Your task to perform on an android device: Add "razer kraken" to the cart on target, then select checkout. Image 0: 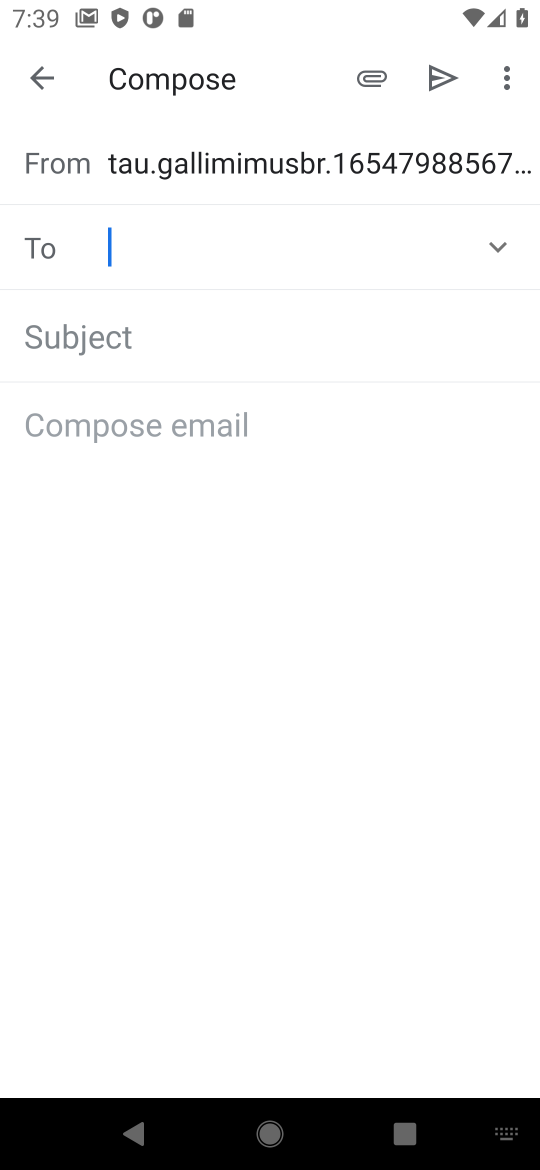
Step 0: press home button
Your task to perform on an android device: Add "razer kraken" to the cart on target, then select checkout. Image 1: 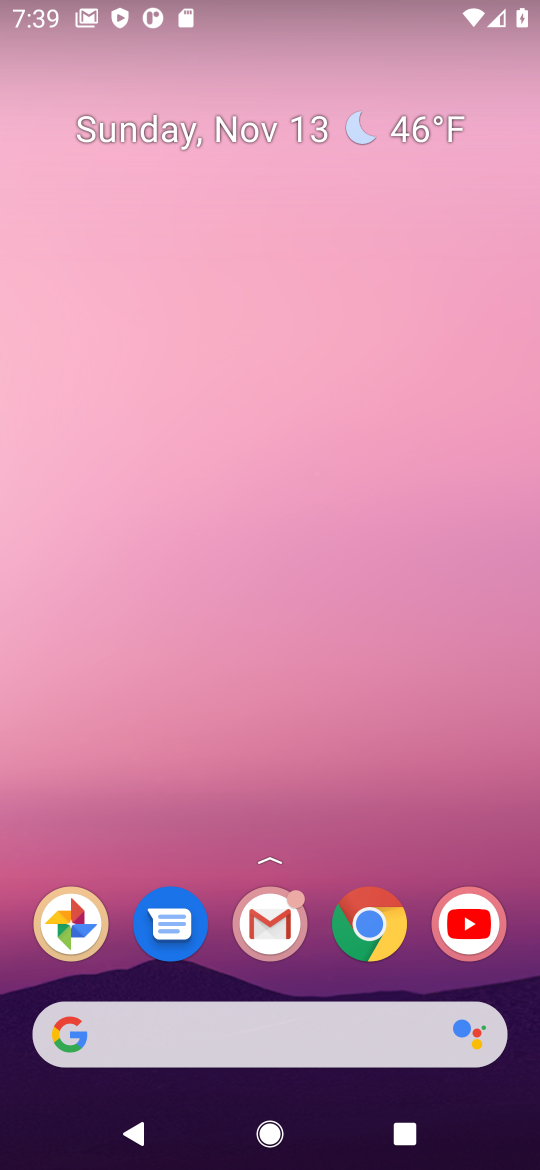
Step 1: click (356, 916)
Your task to perform on an android device: Add "razer kraken" to the cart on target, then select checkout. Image 2: 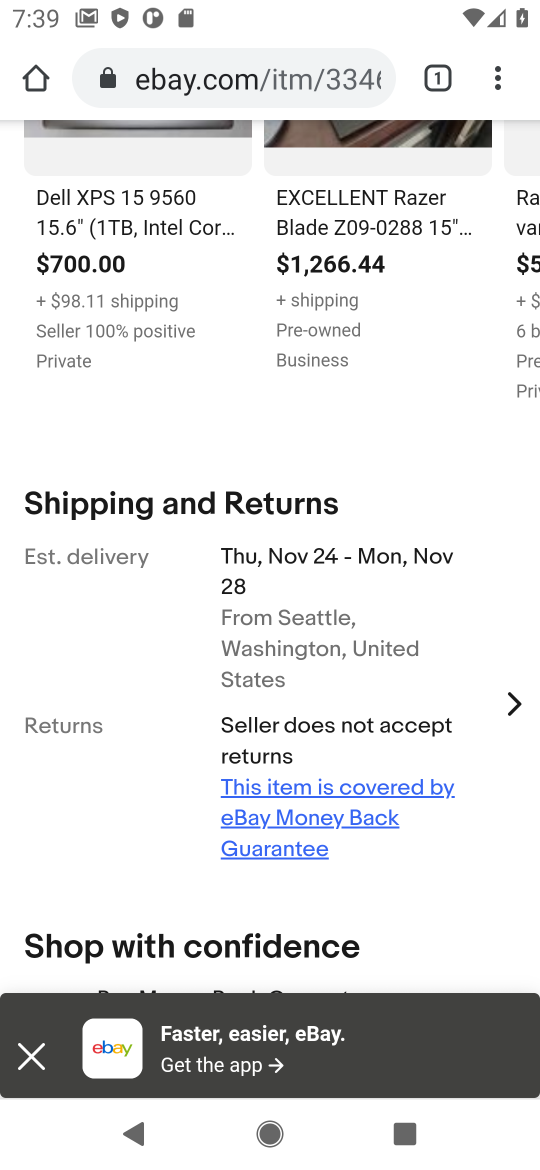
Step 2: click (294, 70)
Your task to perform on an android device: Add "razer kraken" to the cart on target, then select checkout. Image 3: 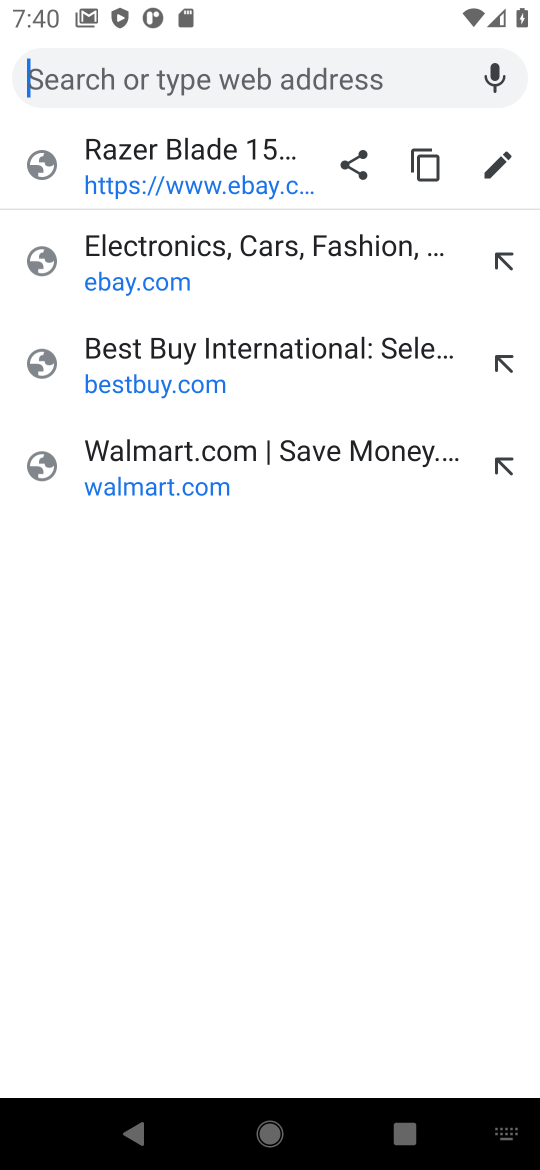
Step 3: type "target"
Your task to perform on an android device: Add "razer kraken" to the cart on target, then select checkout. Image 4: 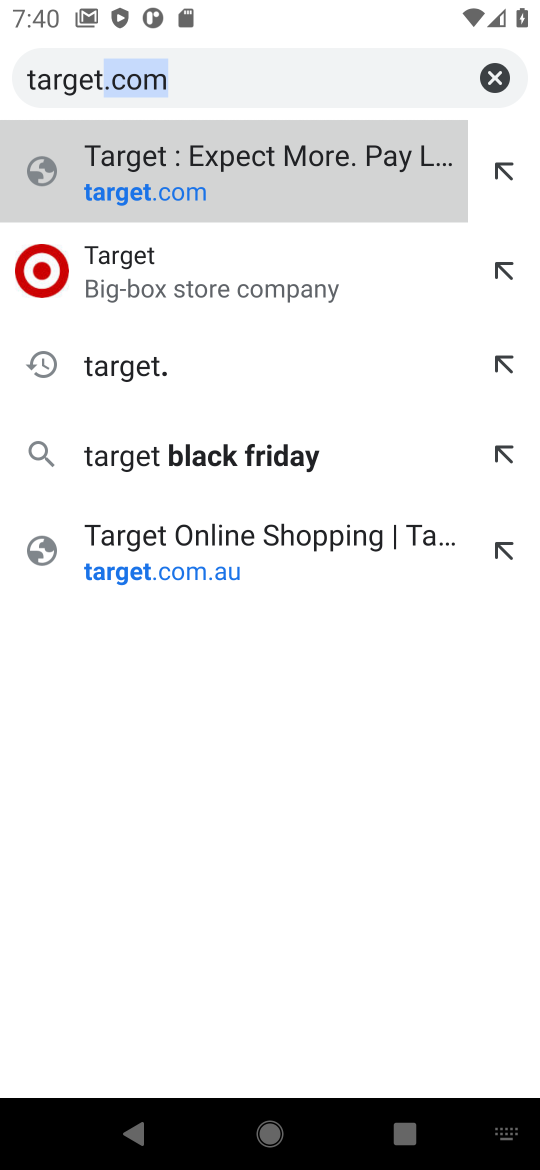
Step 4: press enter
Your task to perform on an android device: Add "razer kraken" to the cart on target, then select checkout. Image 5: 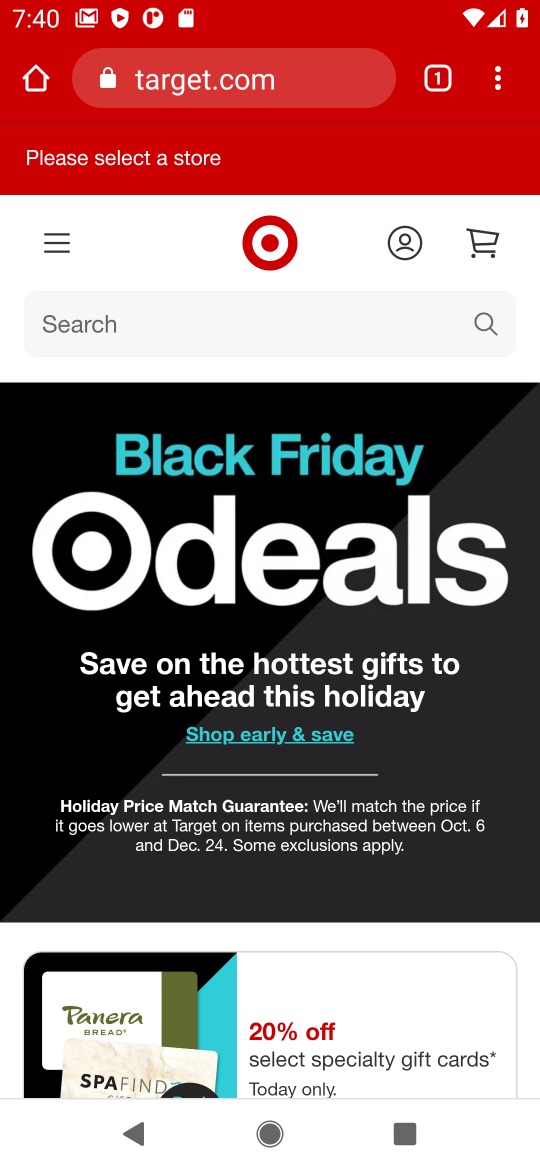
Step 5: click (333, 316)
Your task to perform on an android device: Add "razer kraken" to the cart on target, then select checkout. Image 6: 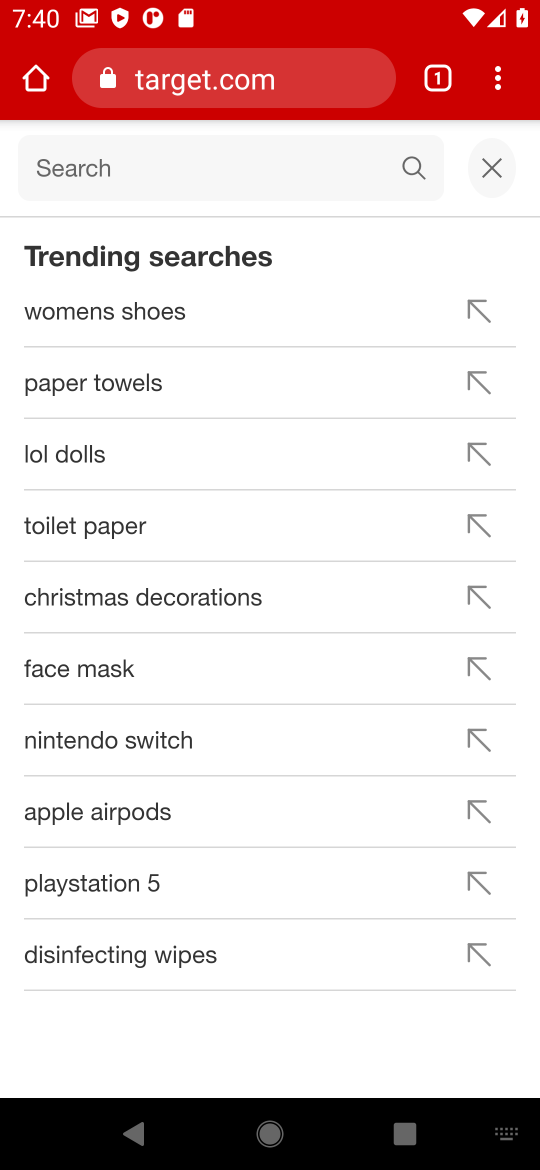
Step 6: click (172, 158)
Your task to perform on an android device: Add "razer kraken" to the cart on target, then select checkout. Image 7: 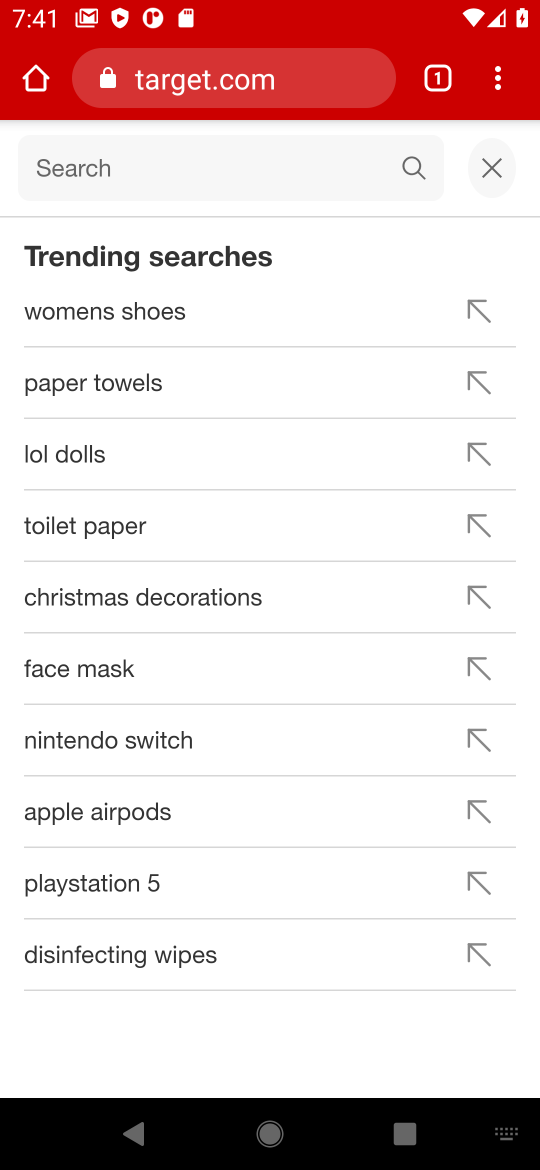
Step 7: type "razer kraken"
Your task to perform on an android device: Add "razer kraken" to the cart on target, then select checkout. Image 8: 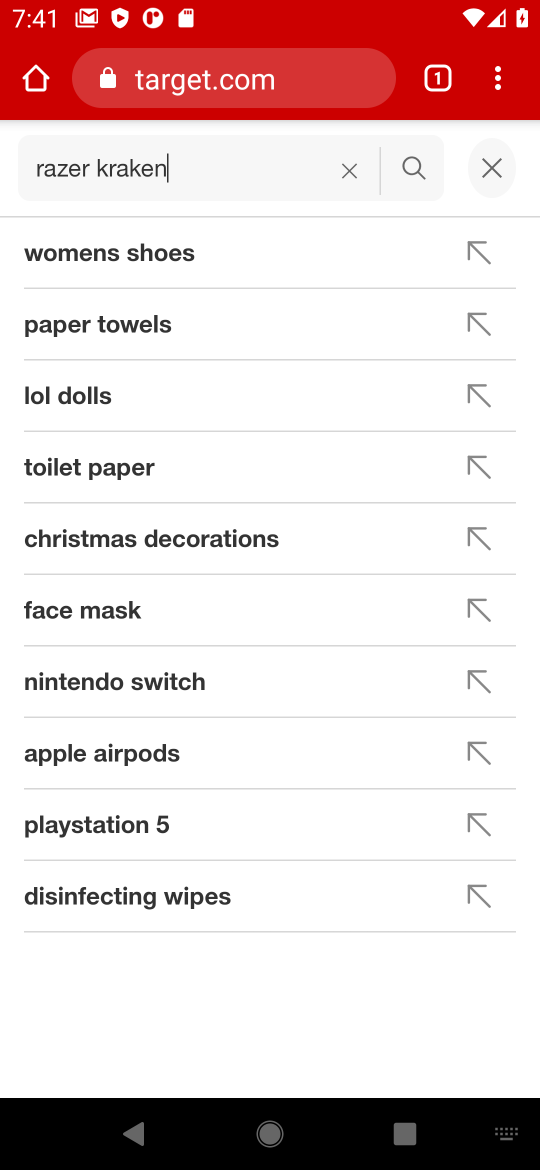
Step 8: press enter
Your task to perform on an android device: Add "razer kraken" to the cart on target, then select checkout. Image 9: 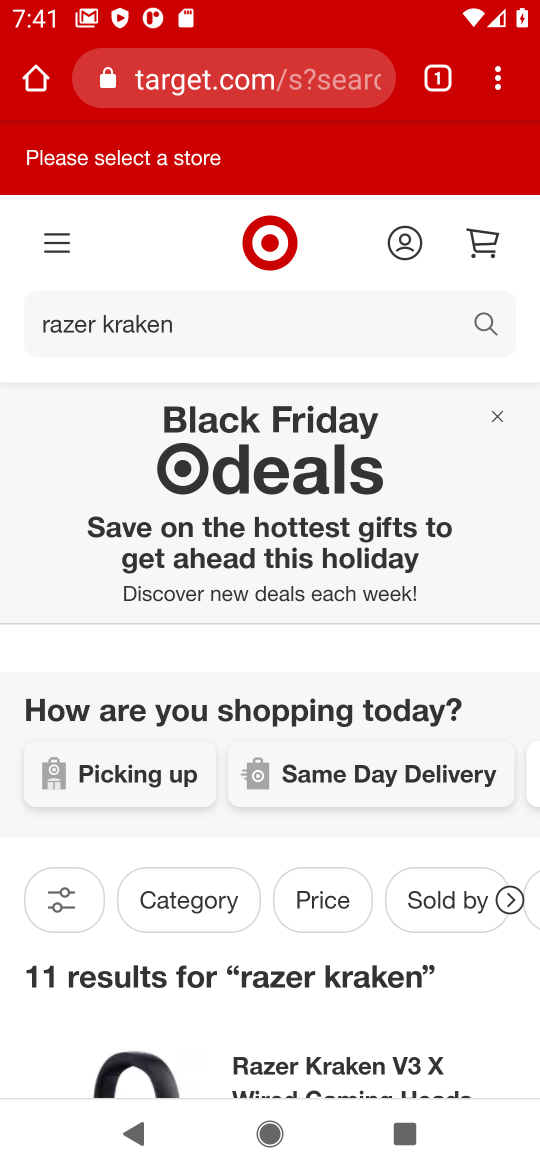
Step 9: drag from (215, 1009) to (331, 361)
Your task to perform on an android device: Add "razer kraken" to the cart on target, then select checkout. Image 10: 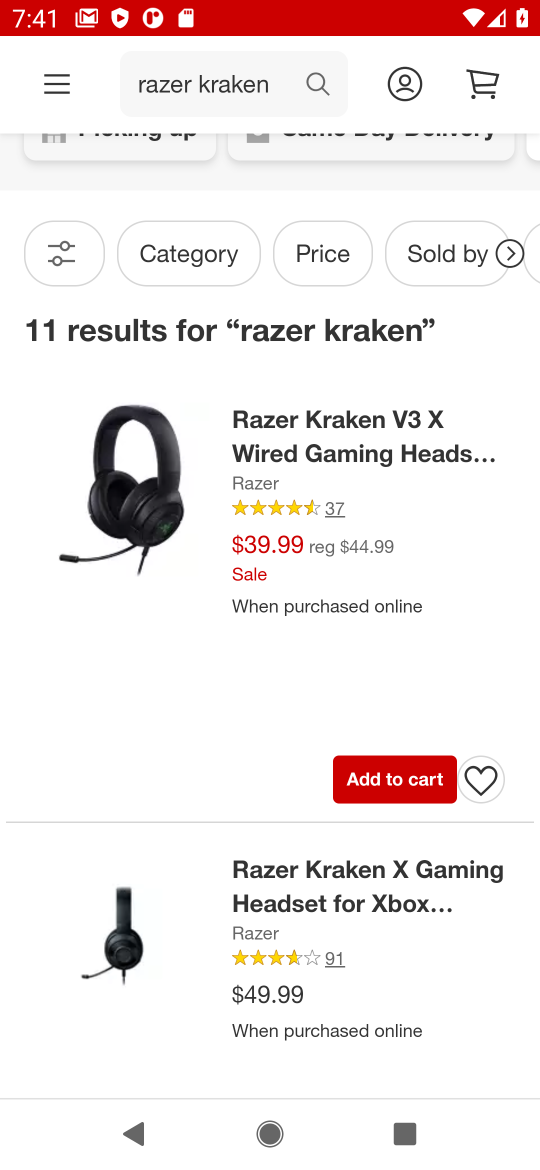
Step 10: click (338, 428)
Your task to perform on an android device: Add "razer kraken" to the cart on target, then select checkout. Image 11: 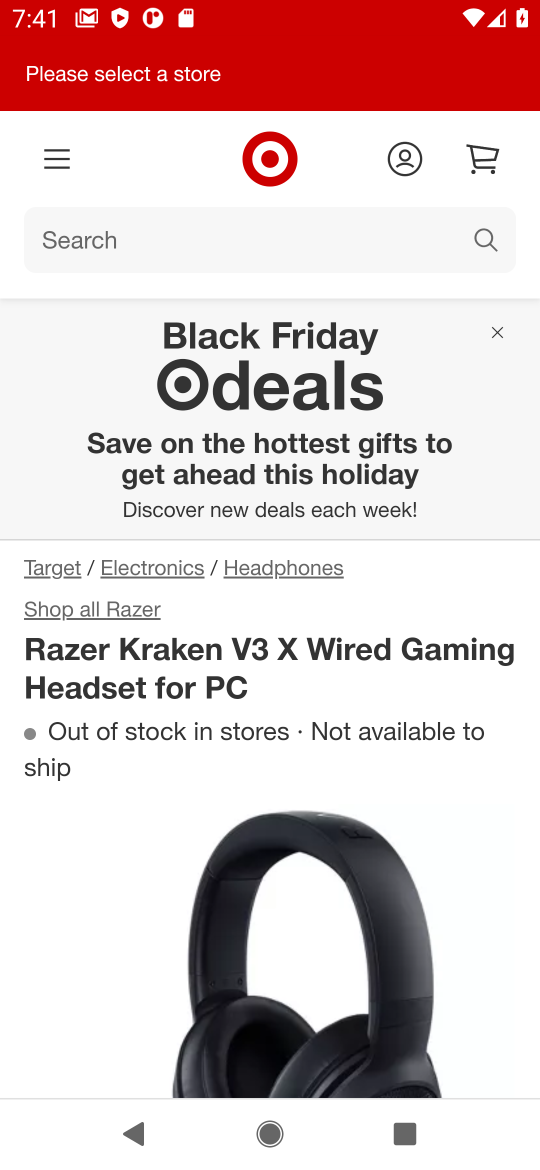
Step 11: drag from (96, 976) to (404, 203)
Your task to perform on an android device: Add "razer kraken" to the cart on target, then select checkout. Image 12: 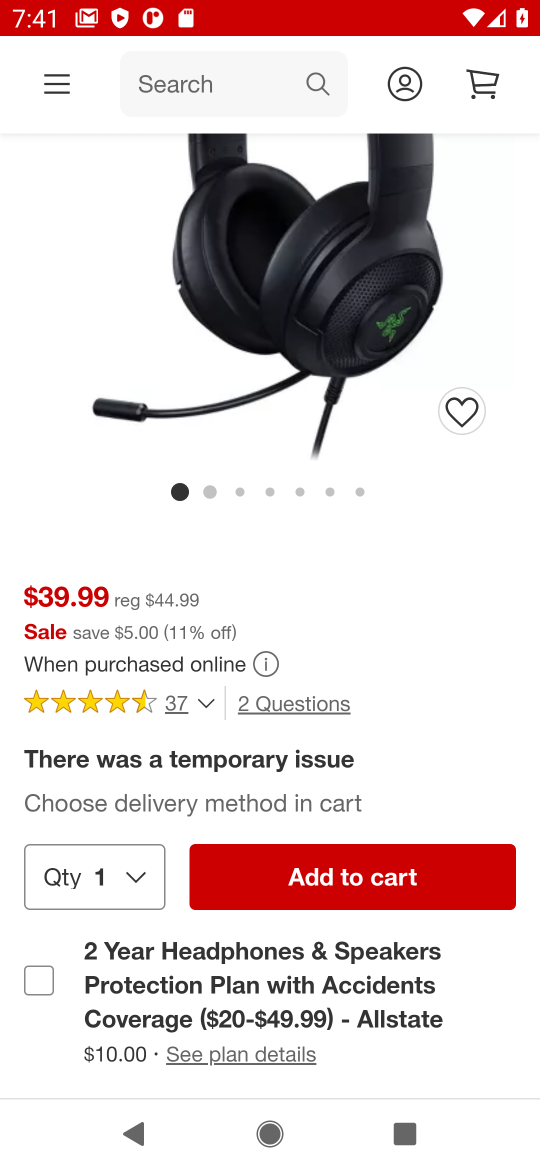
Step 12: click (336, 881)
Your task to perform on an android device: Add "razer kraken" to the cart on target, then select checkout. Image 13: 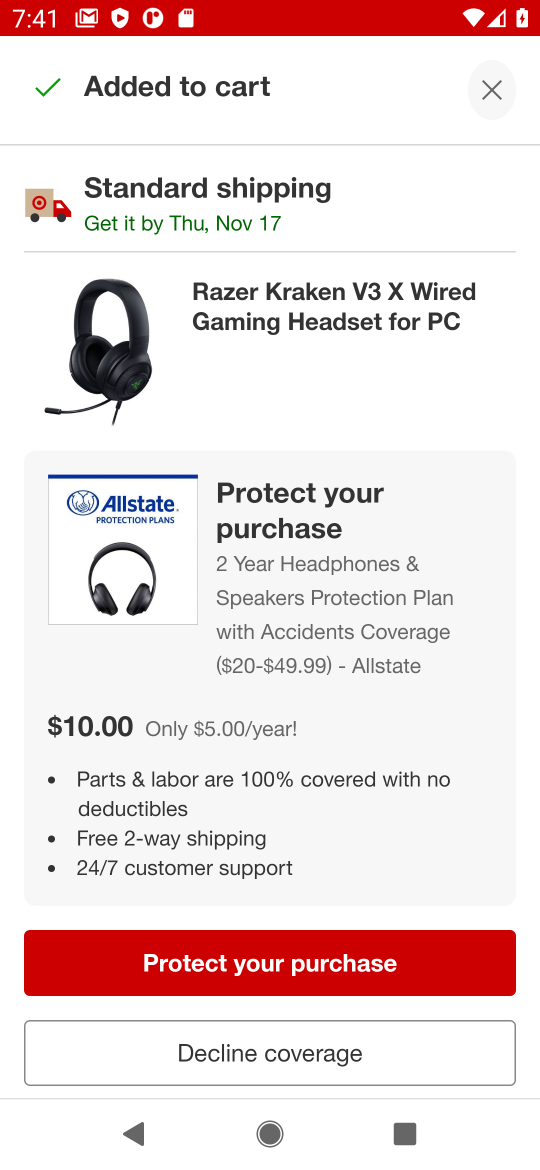
Step 13: drag from (313, 879) to (405, 478)
Your task to perform on an android device: Add "razer kraken" to the cart on target, then select checkout. Image 14: 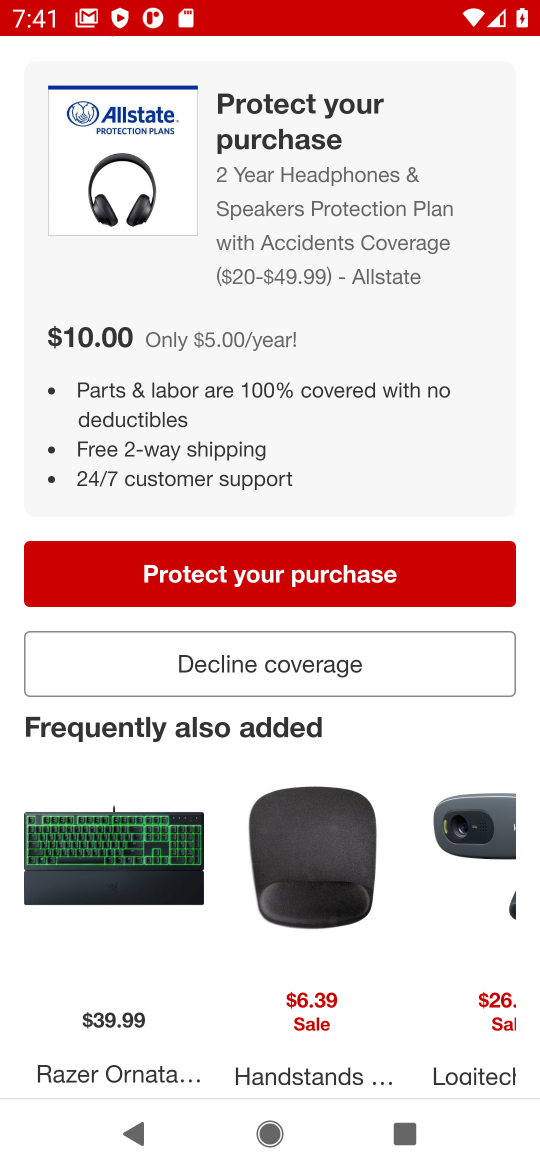
Step 14: click (319, 663)
Your task to perform on an android device: Add "razer kraken" to the cart on target, then select checkout. Image 15: 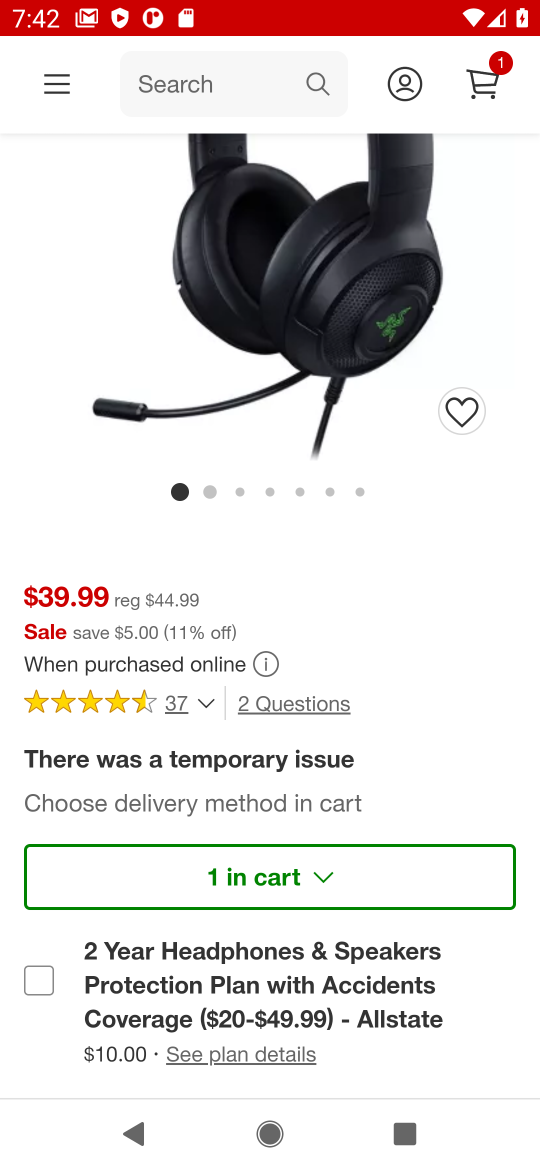
Step 15: click (490, 70)
Your task to perform on an android device: Add "razer kraken" to the cart on target, then select checkout. Image 16: 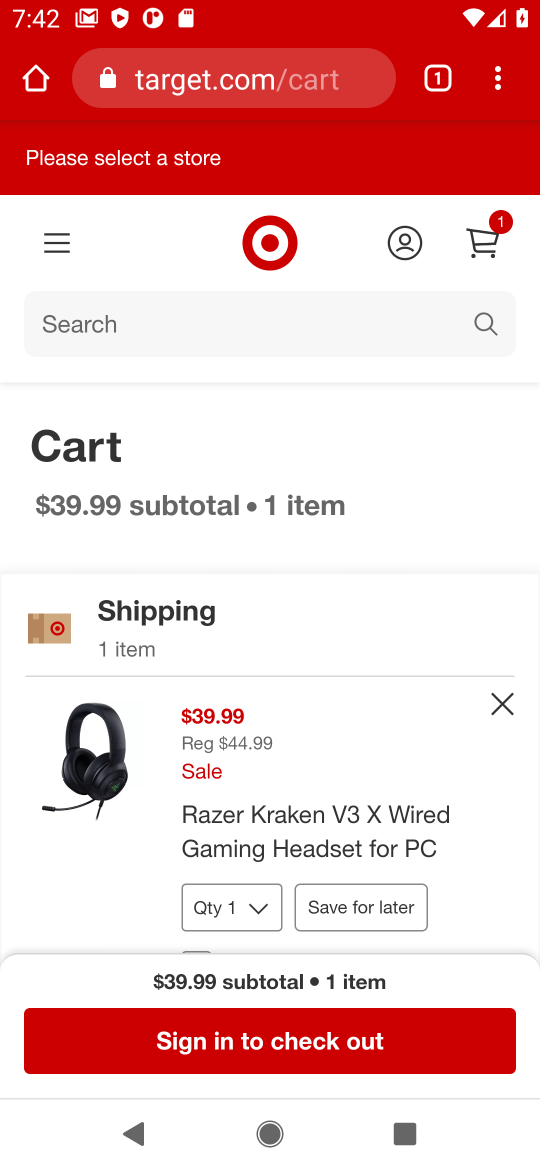
Step 16: click (343, 1029)
Your task to perform on an android device: Add "razer kraken" to the cart on target, then select checkout. Image 17: 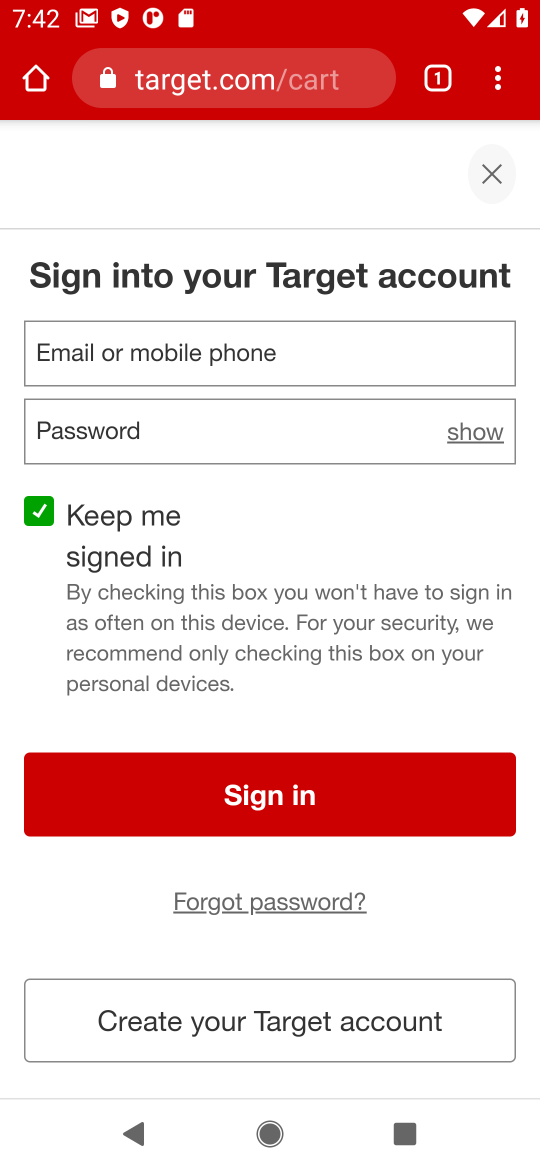
Step 17: task complete